Your task to perform on an android device: What's the news in Japan? Image 0: 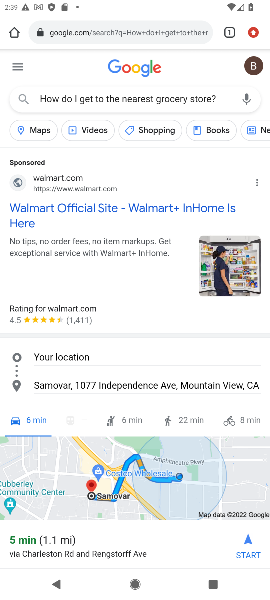
Step 0: click (169, 103)
Your task to perform on an android device: What's the news in Japan? Image 1: 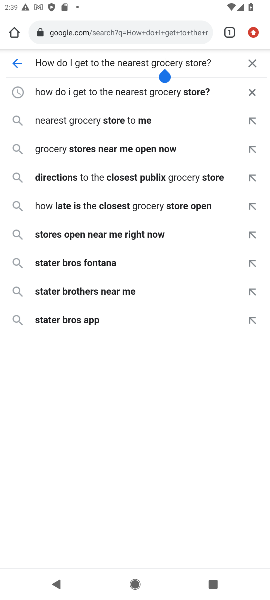
Step 1: click (255, 63)
Your task to perform on an android device: What's the news in Japan? Image 2: 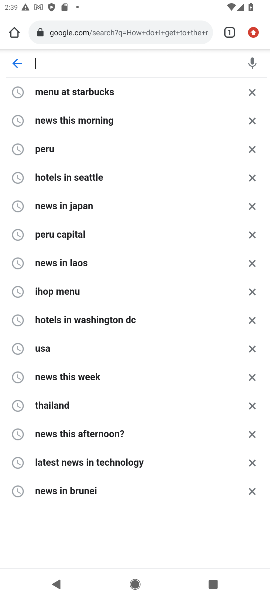
Step 2: type "What's the news in Japan?"
Your task to perform on an android device: What's the news in Japan? Image 3: 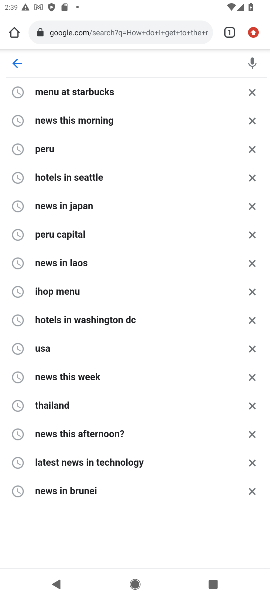
Step 3: click (134, 66)
Your task to perform on an android device: What's the news in Japan? Image 4: 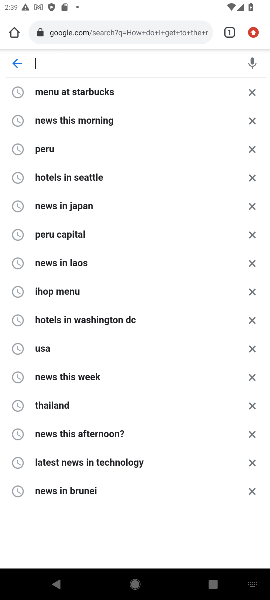
Step 4: type "What's the news in Japan?"
Your task to perform on an android device: What's the news in Japan? Image 5: 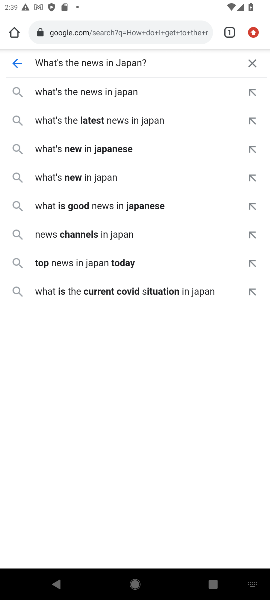
Step 5: press enter
Your task to perform on an android device: What's the news in Japan? Image 6: 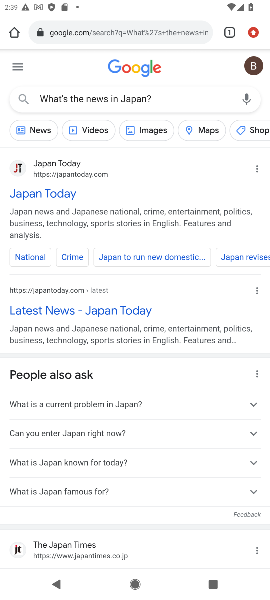
Step 6: click (17, 136)
Your task to perform on an android device: What's the news in Japan? Image 7: 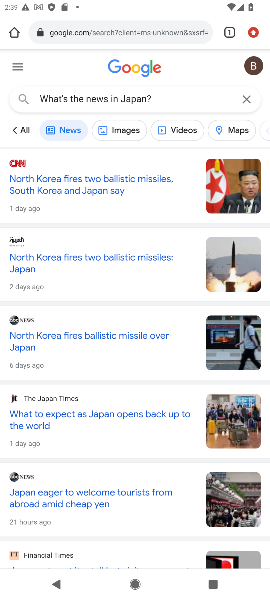
Step 7: task complete